Your task to perform on an android device: What's on my calendar tomorrow? Image 0: 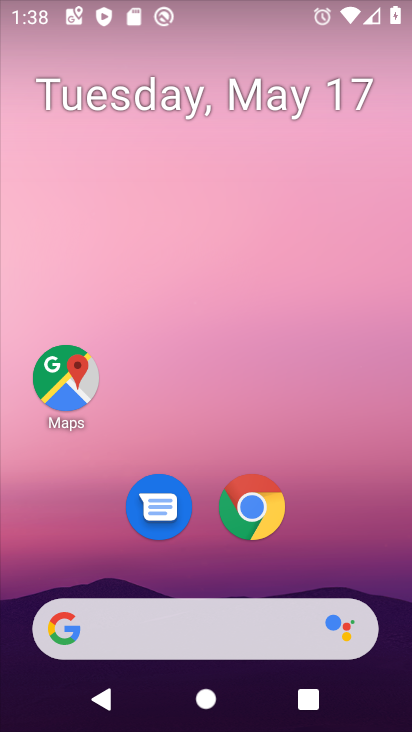
Step 0: drag from (335, 554) to (347, 204)
Your task to perform on an android device: What's on my calendar tomorrow? Image 1: 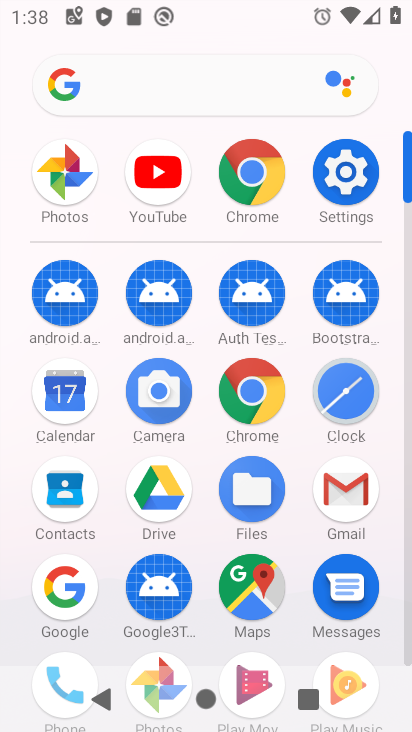
Step 1: drag from (157, 575) to (203, 329)
Your task to perform on an android device: What's on my calendar tomorrow? Image 2: 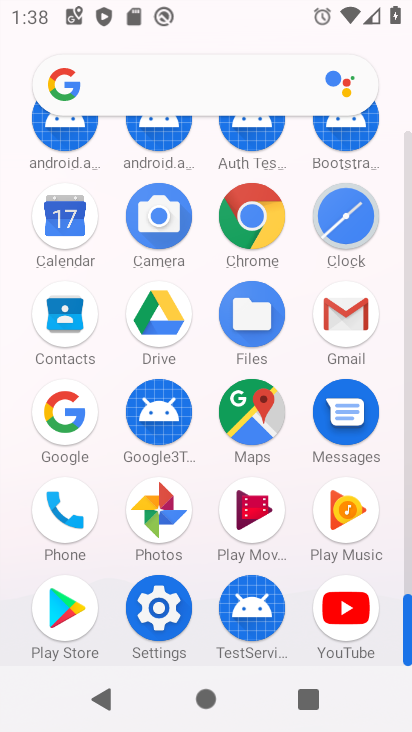
Step 2: click (63, 197)
Your task to perform on an android device: What's on my calendar tomorrow? Image 3: 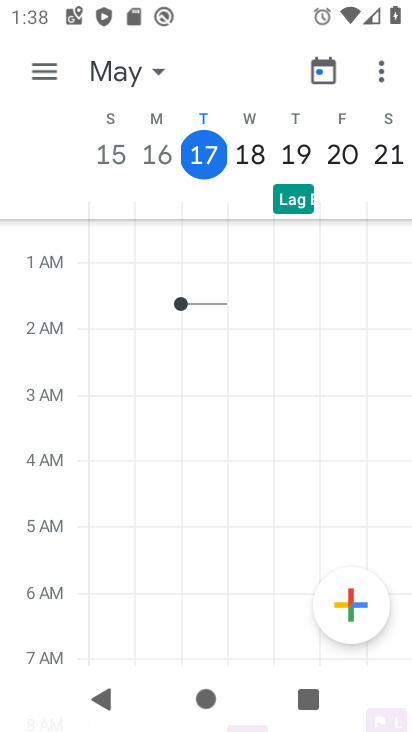
Step 3: click (243, 151)
Your task to perform on an android device: What's on my calendar tomorrow? Image 4: 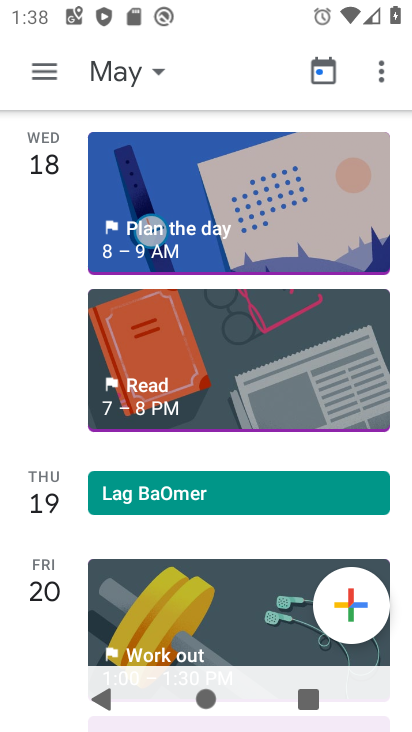
Step 4: task complete